Your task to perform on an android device: turn off translation in the chrome app Image 0: 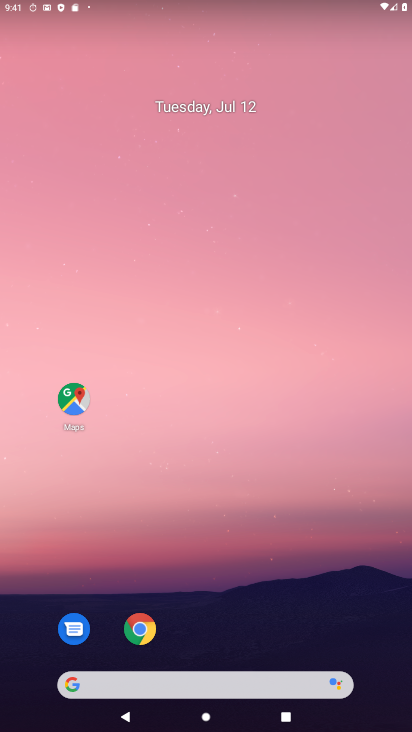
Step 0: drag from (248, 683) to (107, 18)
Your task to perform on an android device: turn off translation in the chrome app Image 1: 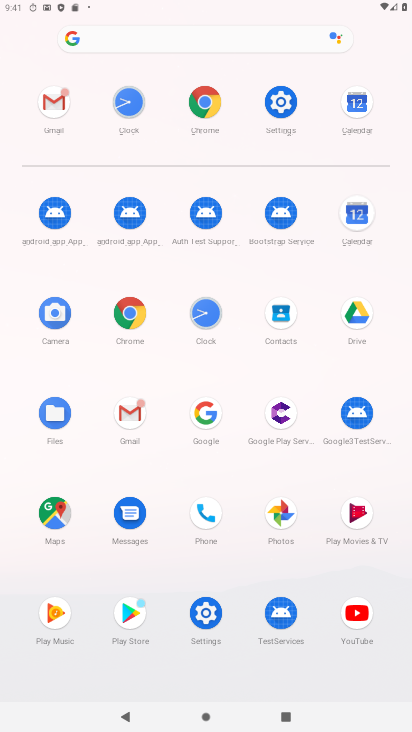
Step 1: click (199, 100)
Your task to perform on an android device: turn off translation in the chrome app Image 2: 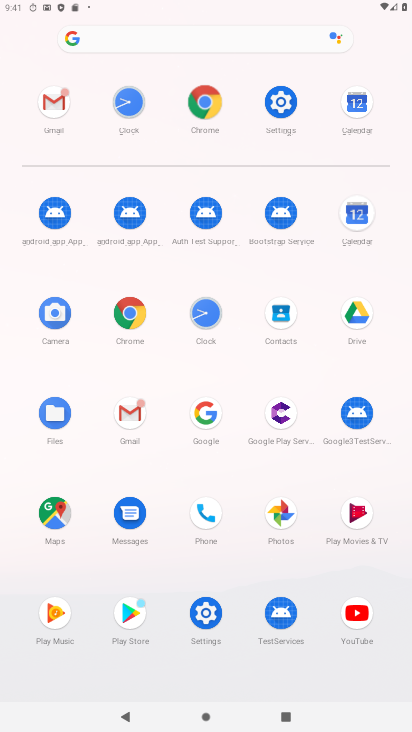
Step 2: click (199, 100)
Your task to perform on an android device: turn off translation in the chrome app Image 3: 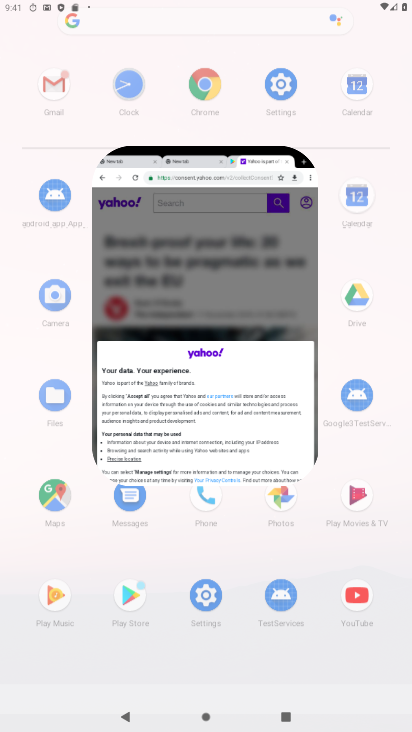
Step 3: click (199, 100)
Your task to perform on an android device: turn off translation in the chrome app Image 4: 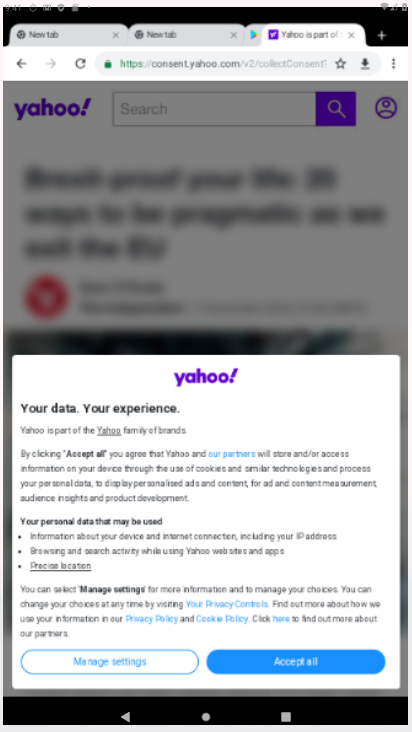
Step 4: click (204, 97)
Your task to perform on an android device: turn off translation in the chrome app Image 5: 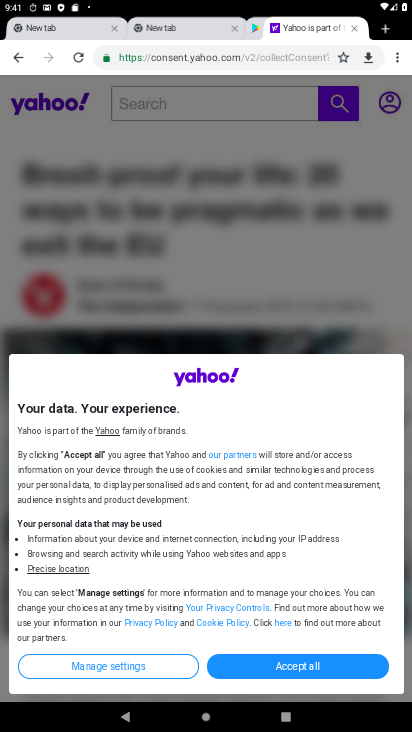
Step 5: drag from (393, 57) to (288, 382)
Your task to perform on an android device: turn off translation in the chrome app Image 6: 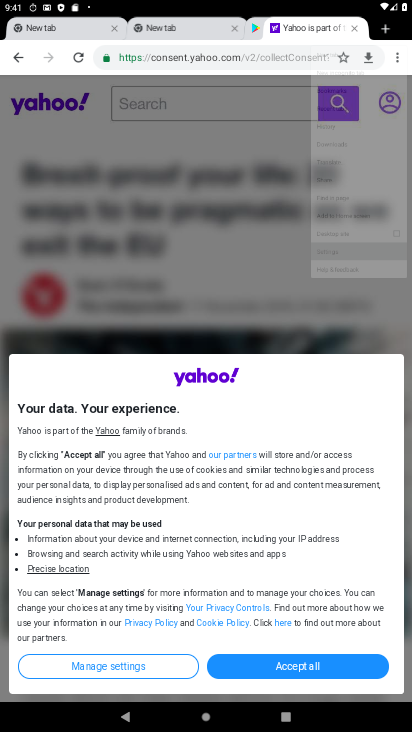
Step 6: click (288, 382)
Your task to perform on an android device: turn off translation in the chrome app Image 7: 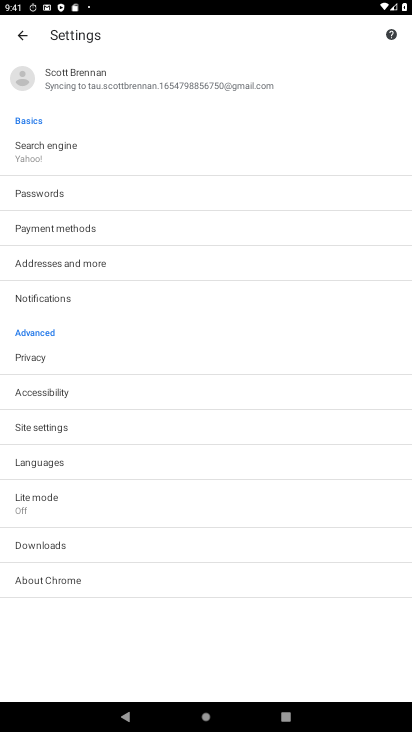
Step 7: click (46, 459)
Your task to perform on an android device: turn off translation in the chrome app Image 8: 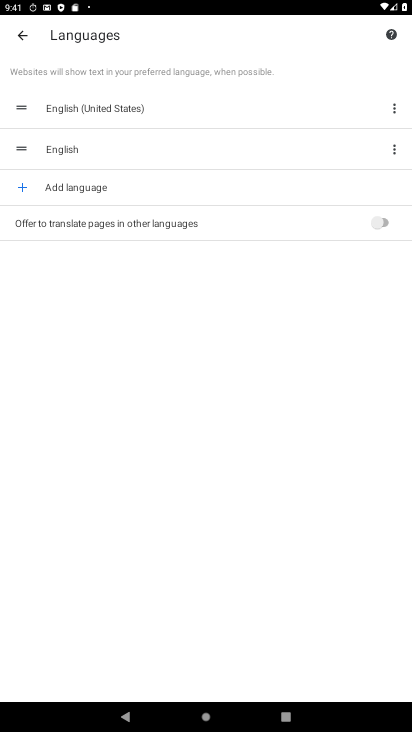
Step 8: click (386, 221)
Your task to perform on an android device: turn off translation in the chrome app Image 9: 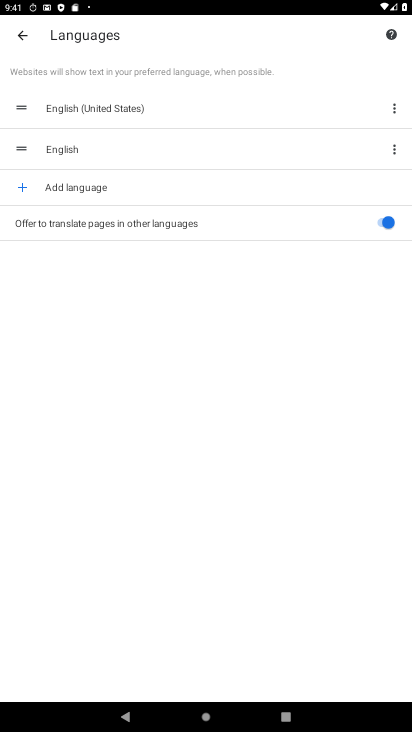
Step 9: click (387, 222)
Your task to perform on an android device: turn off translation in the chrome app Image 10: 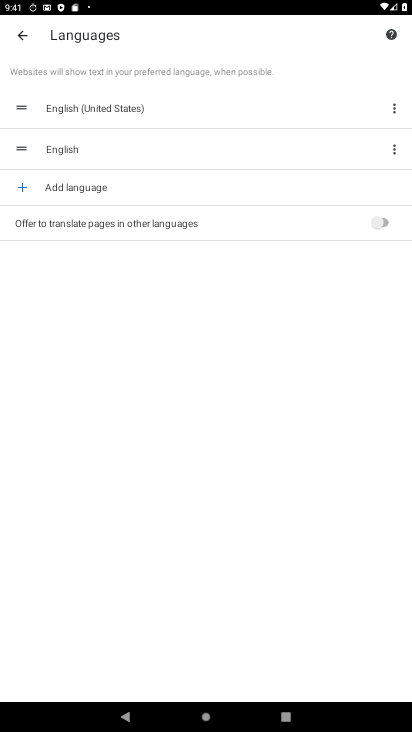
Step 10: task complete